Your task to perform on an android device: search for starred emails in the gmail app Image 0: 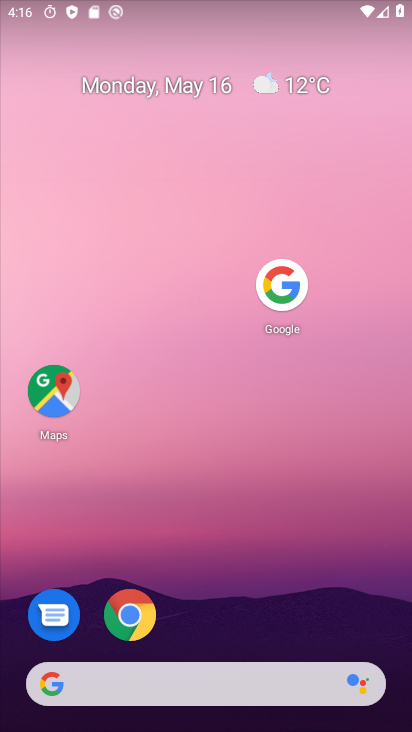
Step 0: drag from (204, 655) to (277, 66)
Your task to perform on an android device: search for starred emails in the gmail app Image 1: 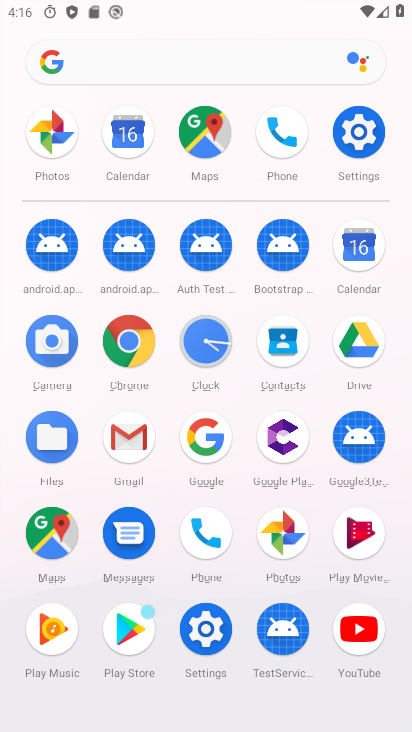
Step 1: click (140, 439)
Your task to perform on an android device: search for starred emails in the gmail app Image 2: 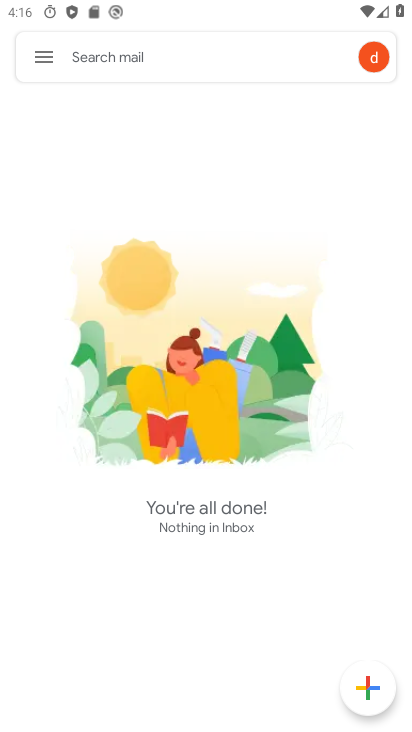
Step 2: click (54, 56)
Your task to perform on an android device: search for starred emails in the gmail app Image 3: 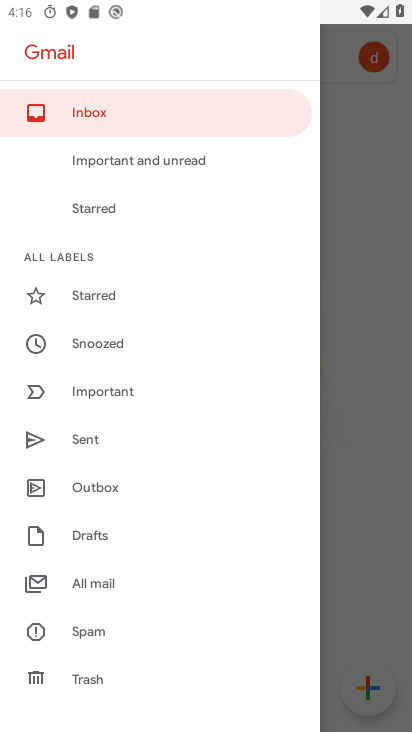
Step 3: click (75, 296)
Your task to perform on an android device: search for starred emails in the gmail app Image 4: 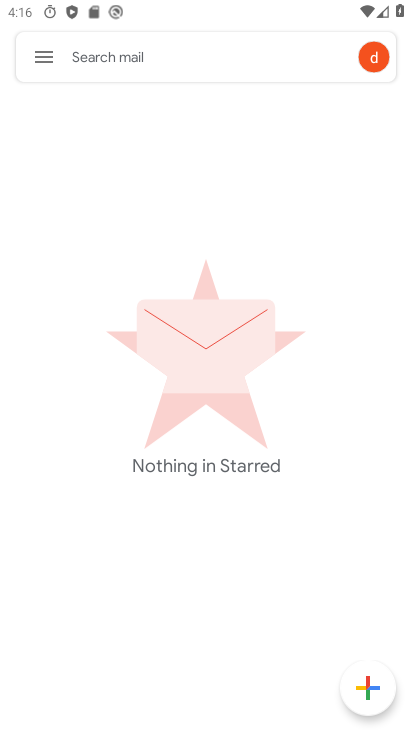
Step 4: task complete